Your task to perform on an android device: Go to settings Image 0: 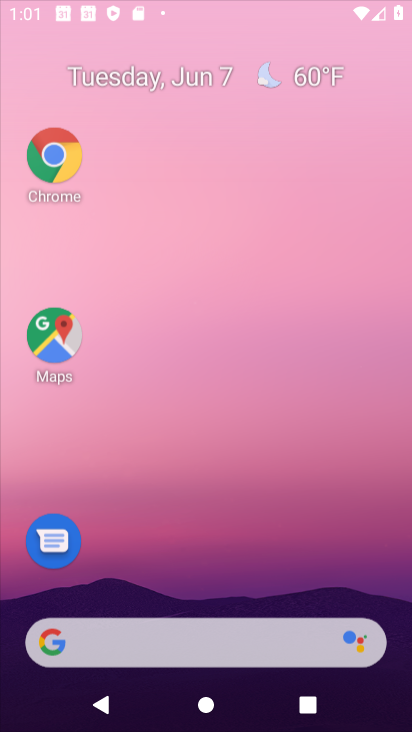
Step 0: click (258, 163)
Your task to perform on an android device: Go to settings Image 1: 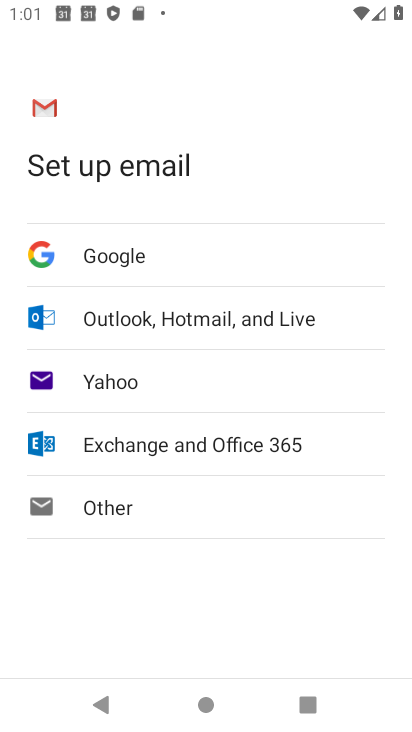
Step 1: drag from (171, 585) to (289, 183)
Your task to perform on an android device: Go to settings Image 2: 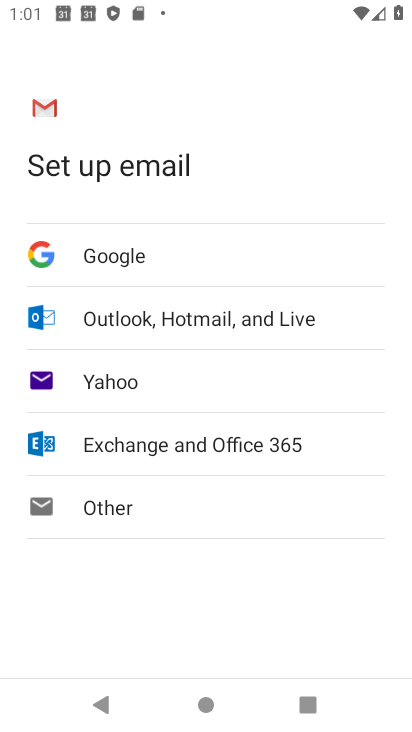
Step 2: press home button
Your task to perform on an android device: Go to settings Image 3: 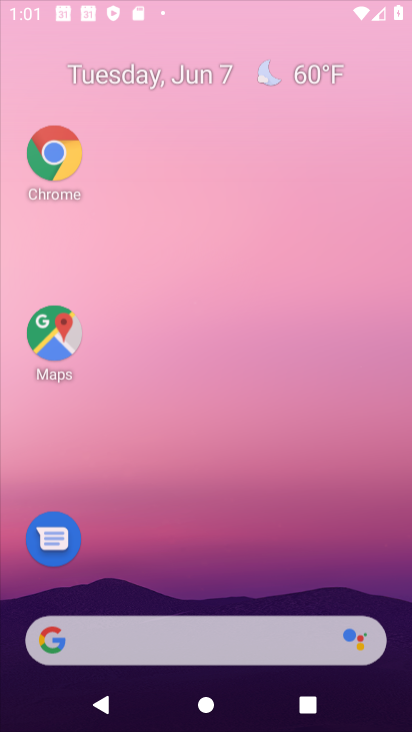
Step 3: drag from (202, 597) to (281, 2)
Your task to perform on an android device: Go to settings Image 4: 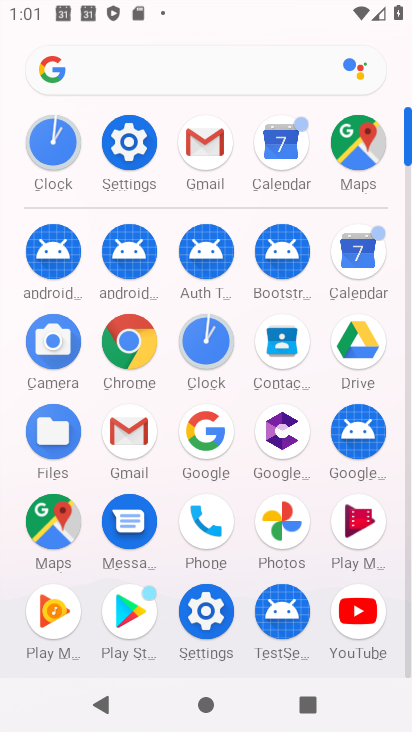
Step 4: click (127, 133)
Your task to perform on an android device: Go to settings Image 5: 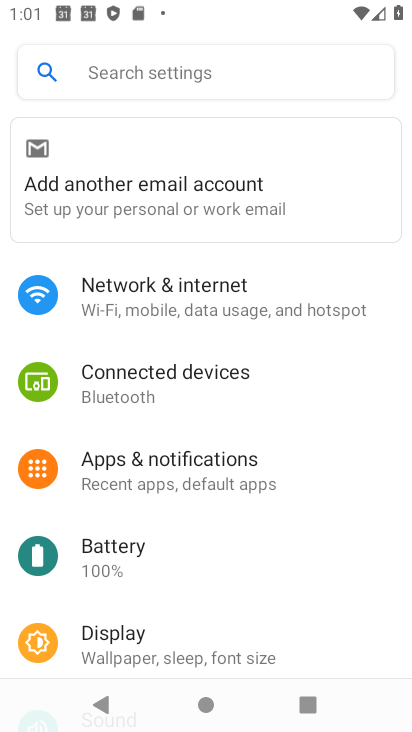
Step 5: task complete